Your task to perform on an android device: manage bookmarks in the chrome app Image 0: 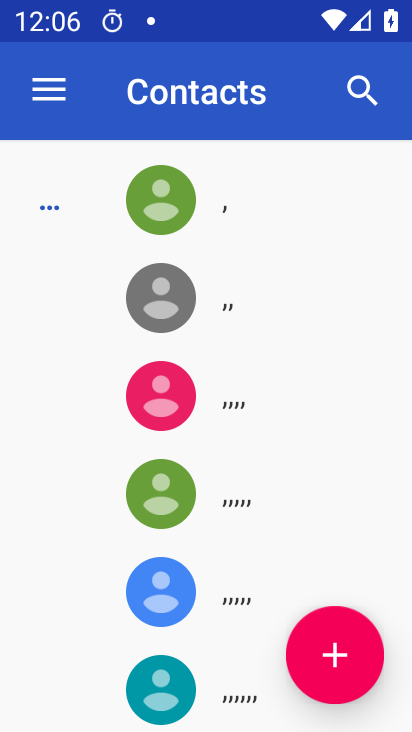
Step 0: press home button
Your task to perform on an android device: manage bookmarks in the chrome app Image 1: 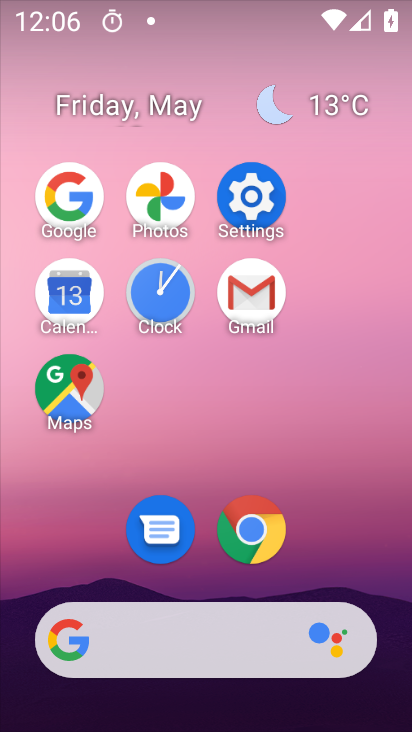
Step 1: click (275, 520)
Your task to perform on an android device: manage bookmarks in the chrome app Image 2: 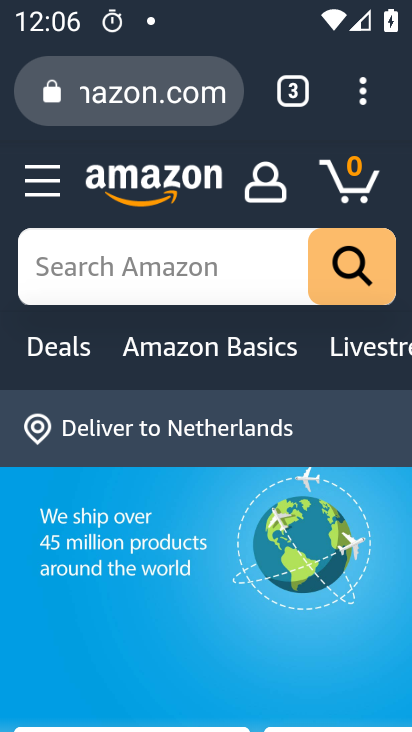
Step 2: click (374, 102)
Your task to perform on an android device: manage bookmarks in the chrome app Image 3: 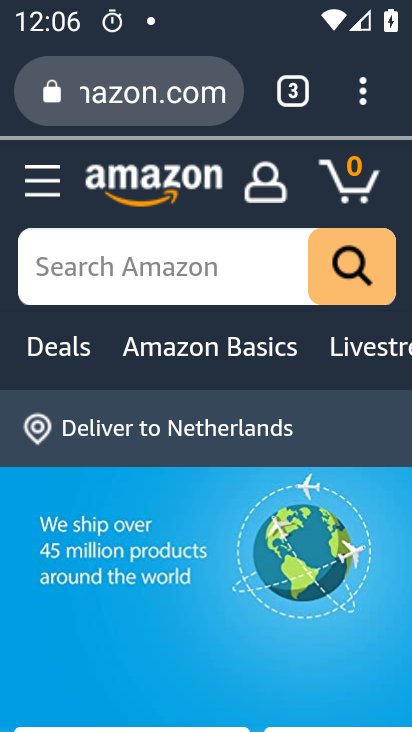
Step 3: click (382, 69)
Your task to perform on an android device: manage bookmarks in the chrome app Image 4: 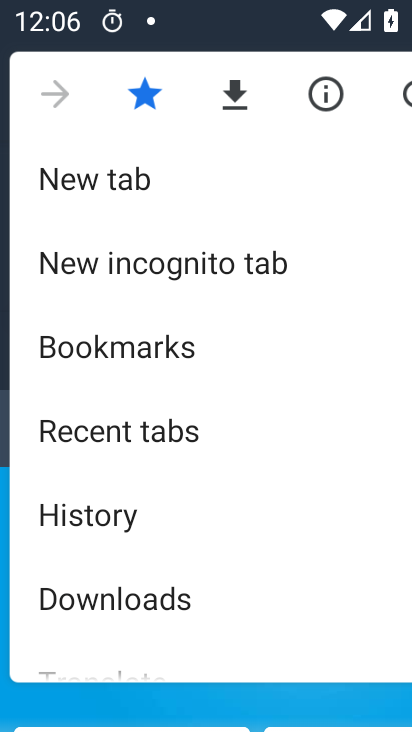
Step 4: drag from (159, 505) to (213, 155)
Your task to perform on an android device: manage bookmarks in the chrome app Image 5: 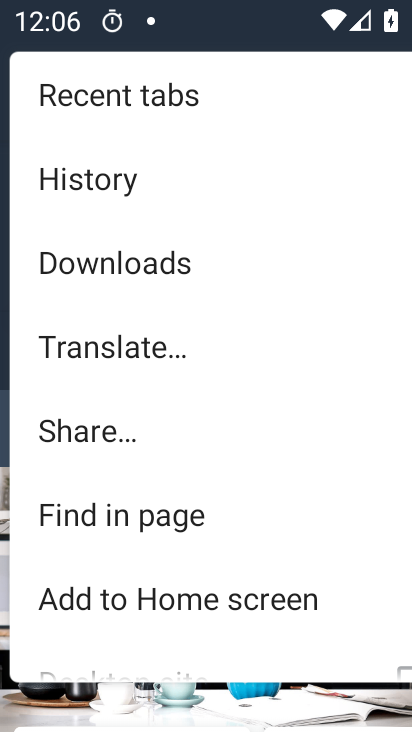
Step 5: drag from (199, 202) to (204, 554)
Your task to perform on an android device: manage bookmarks in the chrome app Image 6: 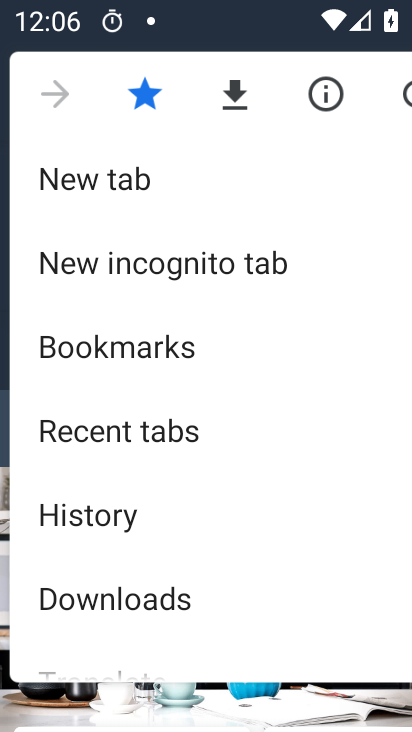
Step 6: click (188, 375)
Your task to perform on an android device: manage bookmarks in the chrome app Image 7: 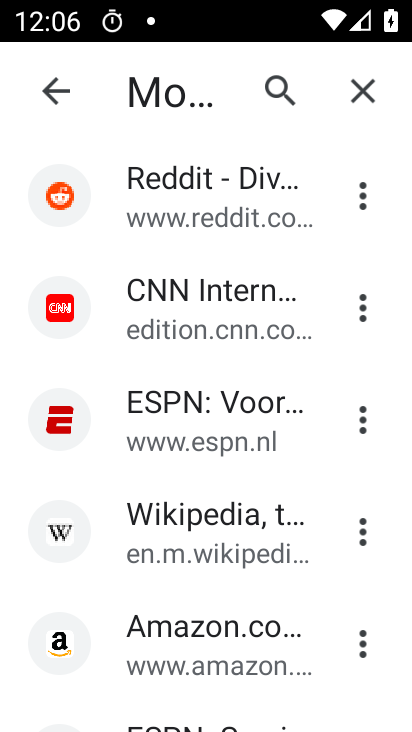
Step 7: click (367, 186)
Your task to perform on an android device: manage bookmarks in the chrome app Image 8: 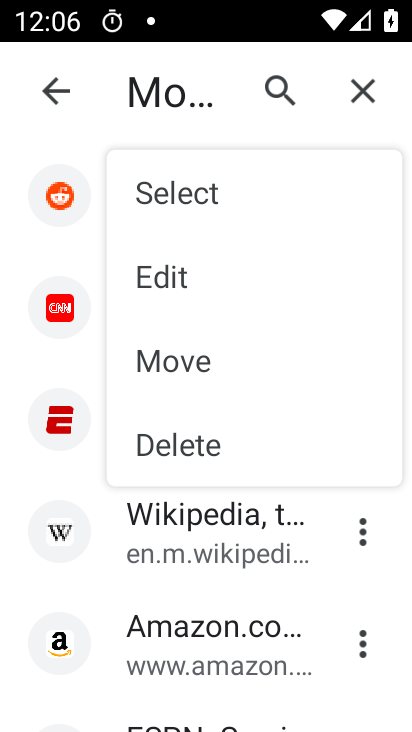
Step 8: click (202, 437)
Your task to perform on an android device: manage bookmarks in the chrome app Image 9: 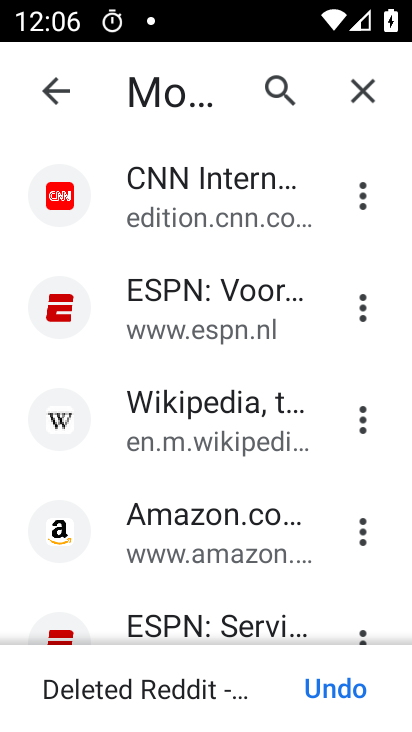
Step 9: task complete